Your task to perform on an android device: turn notification dots off Image 0: 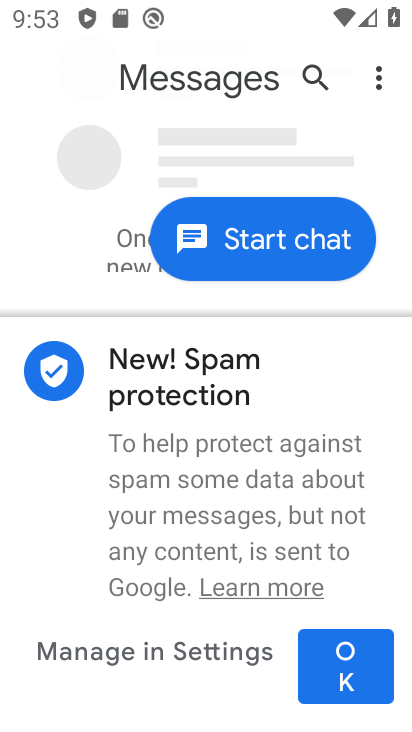
Step 0: press home button
Your task to perform on an android device: turn notification dots off Image 1: 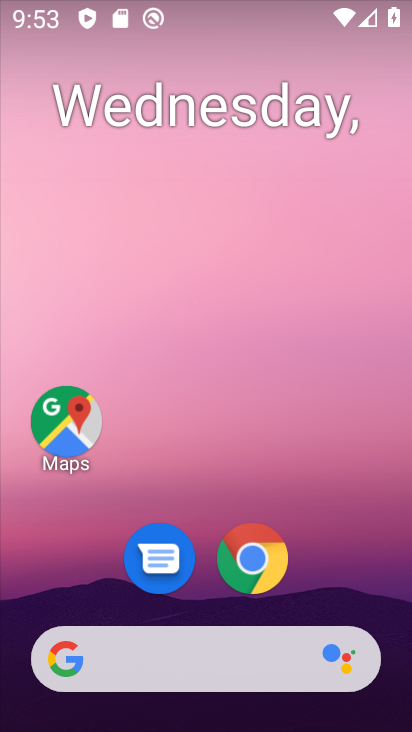
Step 1: drag from (13, 586) to (324, 164)
Your task to perform on an android device: turn notification dots off Image 2: 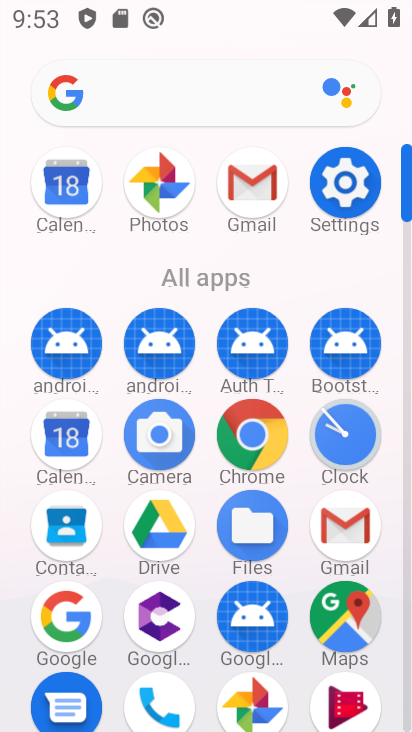
Step 2: click (331, 198)
Your task to perform on an android device: turn notification dots off Image 3: 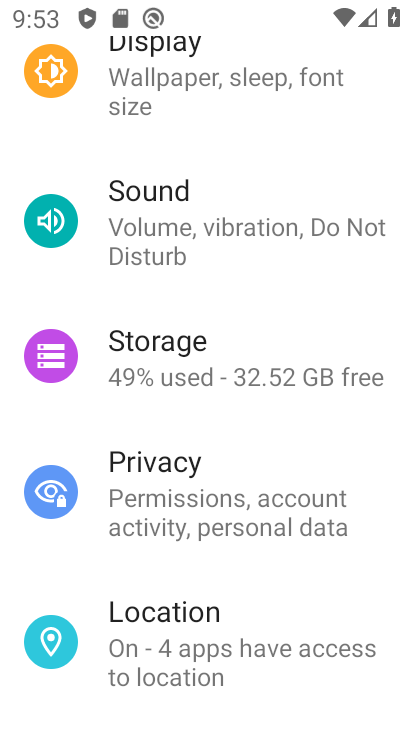
Step 3: drag from (137, 114) to (109, 422)
Your task to perform on an android device: turn notification dots off Image 4: 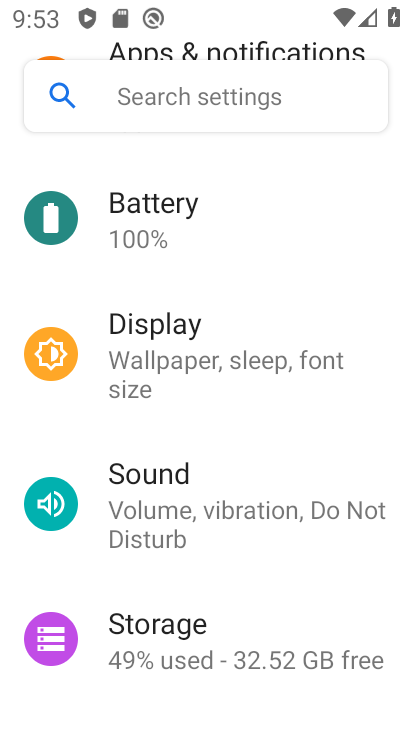
Step 4: drag from (193, 182) to (187, 333)
Your task to perform on an android device: turn notification dots off Image 5: 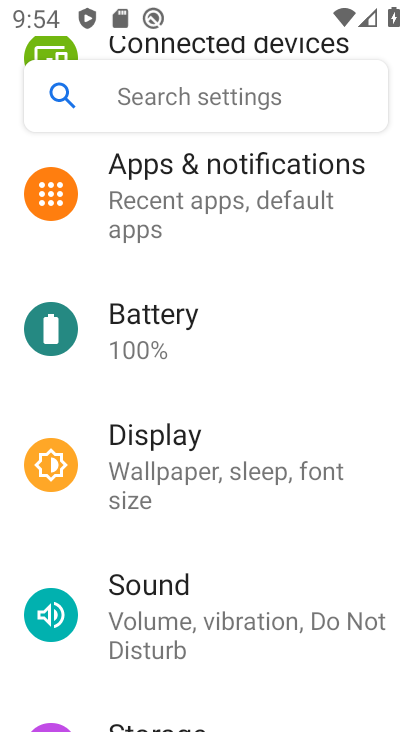
Step 5: click (210, 196)
Your task to perform on an android device: turn notification dots off Image 6: 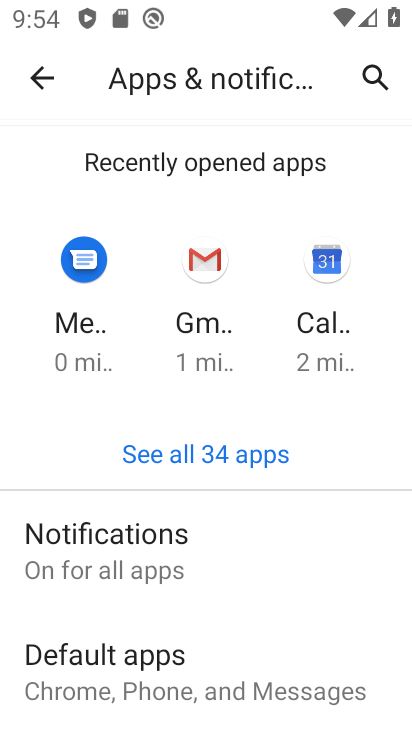
Step 6: click (98, 561)
Your task to perform on an android device: turn notification dots off Image 7: 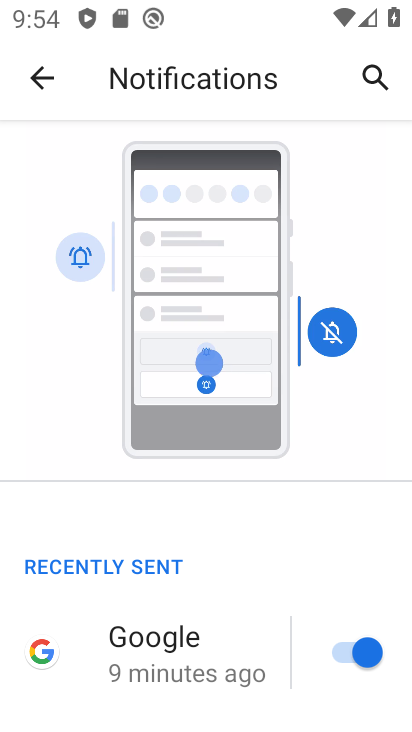
Step 7: drag from (9, 530) to (142, 343)
Your task to perform on an android device: turn notification dots off Image 8: 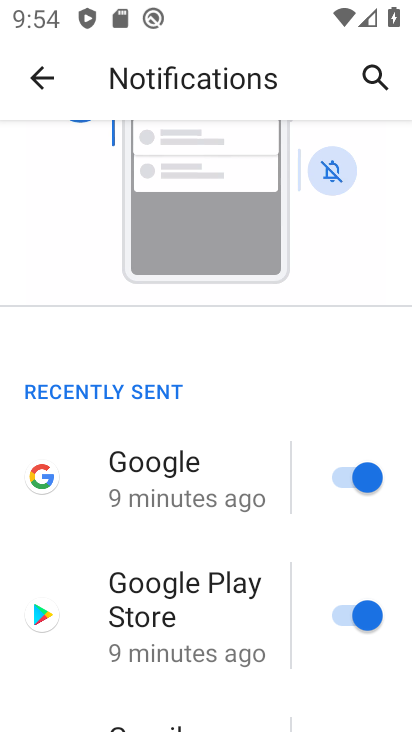
Step 8: drag from (51, 366) to (151, 245)
Your task to perform on an android device: turn notification dots off Image 9: 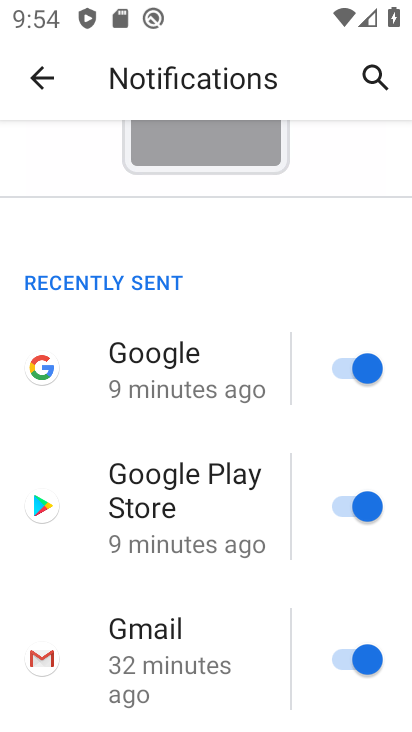
Step 9: drag from (18, 404) to (256, 64)
Your task to perform on an android device: turn notification dots off Image 10: 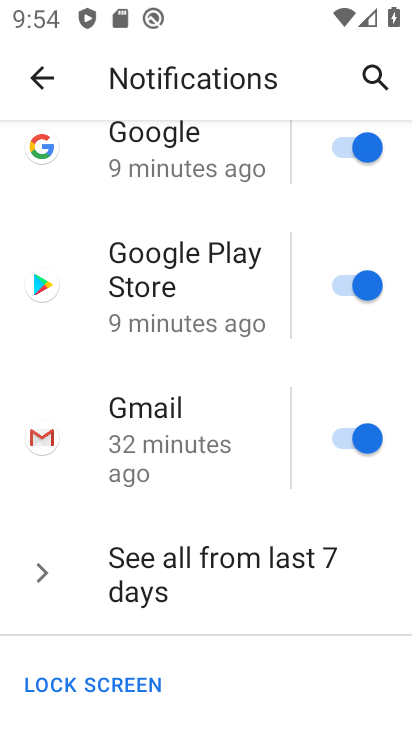
Step 10: drag from (105, 268) to (232, 114)
Your task to perform on an android device: turn notification dots off Image 11: 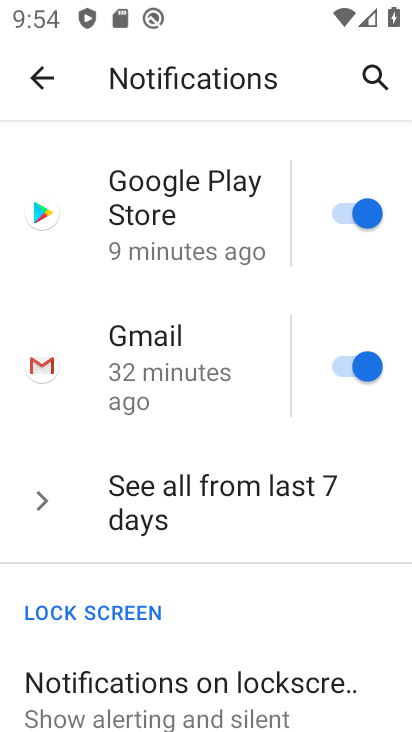
Step 11: drag from (10, 391) to (183, 299)
Your task to perform on an android device: turn notification dots off Image 12: 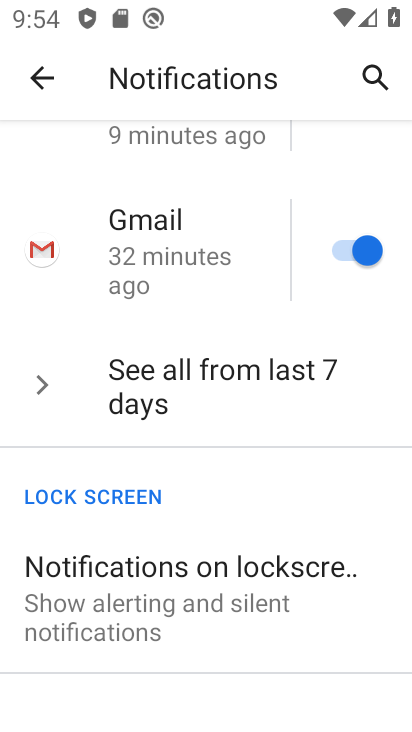
Step 12: drag from (114, 612) to (257, 315)
Your task to perform on an android device: turn notification dots off Image 13: 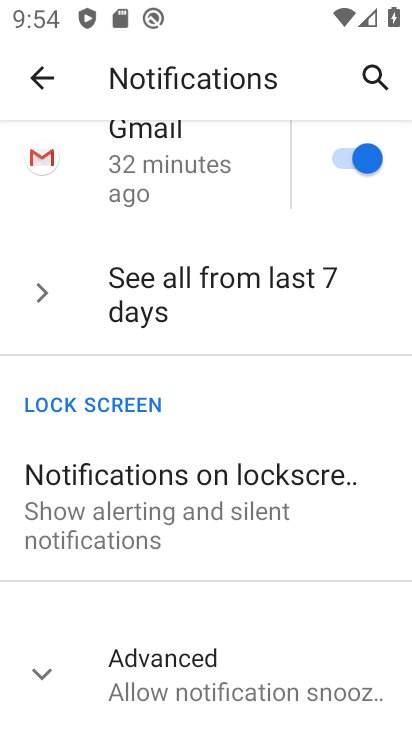
Step 13: click (167, 669)
Your task to perform on an android device: turn notification dots off Image 14: 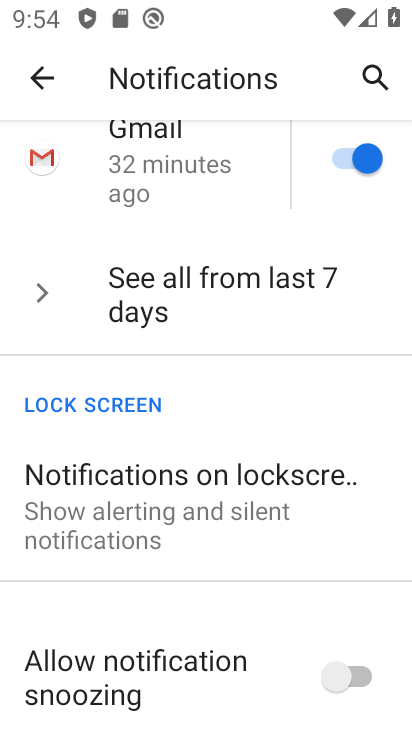
Step 14: drag from (31, 538) to (253, 203)
Your task to perform on an android device: turn notification dots off Image 15: 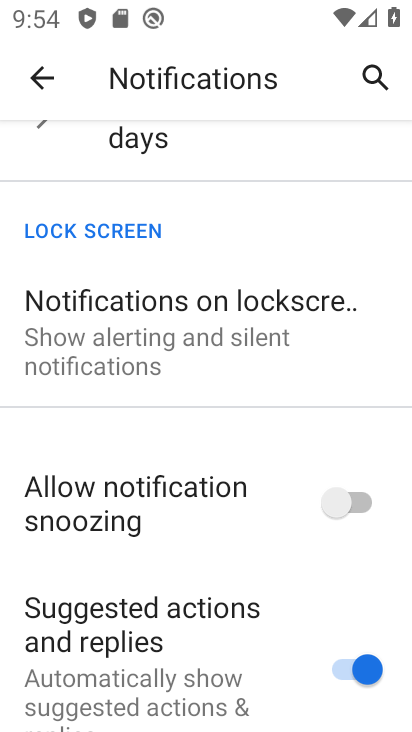
Step 15: drag from (56, 549) to (274, 238)
Your task to perform on an android device: turn notification dots off Image 16: 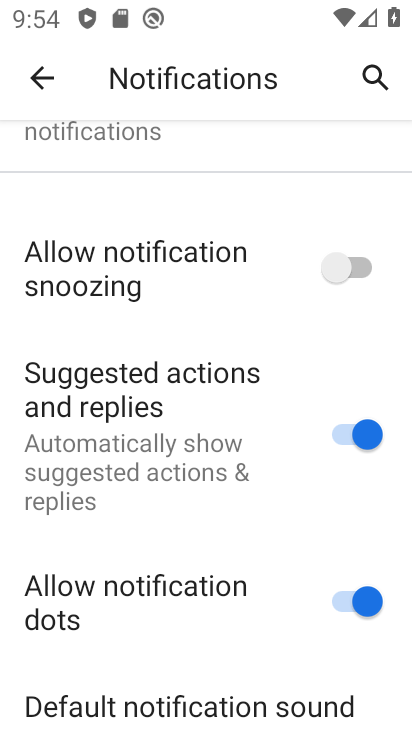
Step 16: click (347, 602)
Your task to perform on an android device: turn notification dots off Image 17: 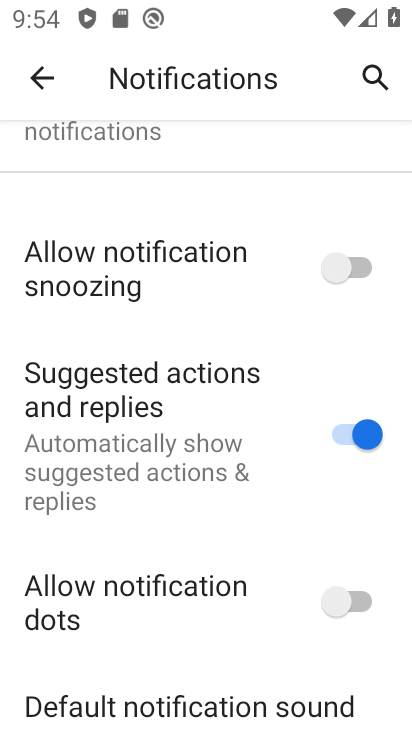
Step 17: task complete